Your task to perform on an android device: Open Wikipedia Image 0: 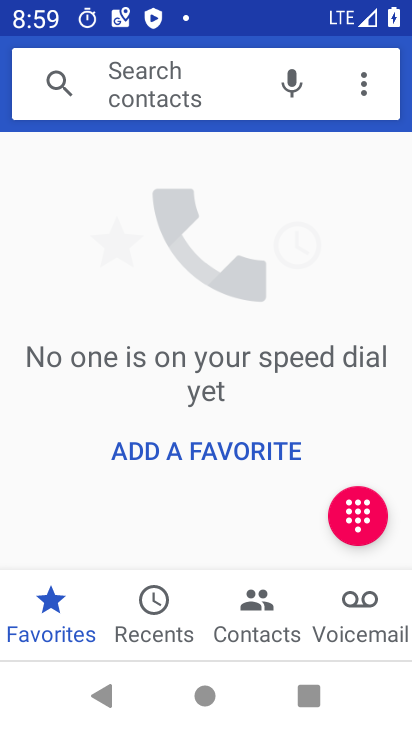
Step 0: press home button
Your task to perform on an android device: Open Wikipedia Image 1: 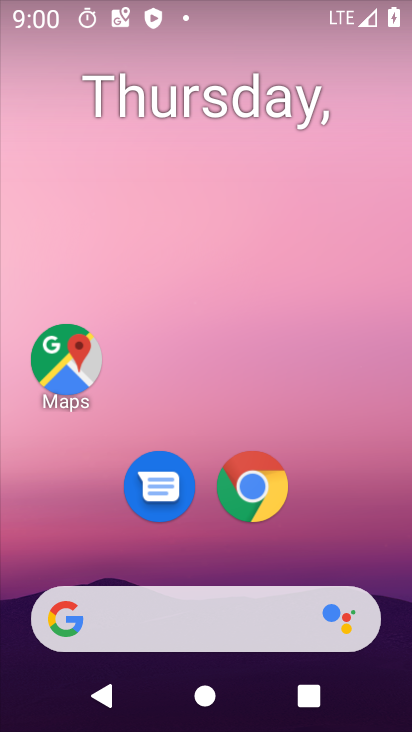
Step 1: click (253, 508)
Your task to perform on an android device: Open Wikipedia Image 2: 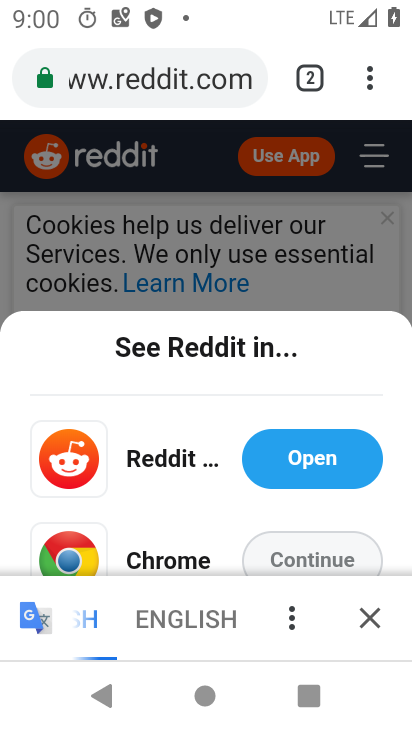
Step 2: click (155, 91)
Your task to perform on an android device: Open Wikipedia Image 3: 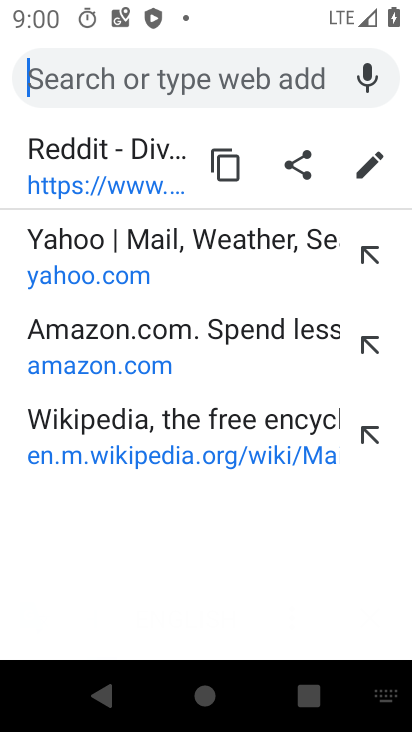
Step 3: click (108, 420)
Your task to perform on an android device: Open Wikipedia Image 4: 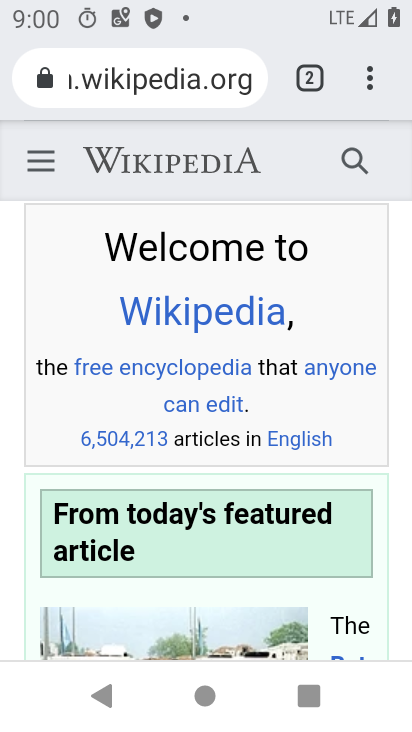
Step 4: task complete